Your task to perform on an android device: Show me recent news Image 0: 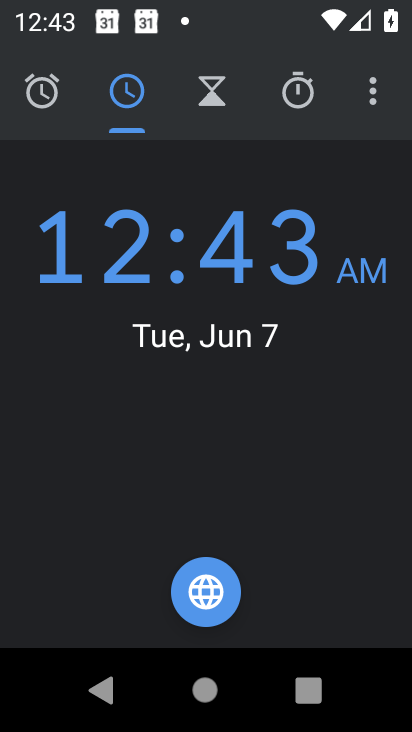
Step 0: press home button
Your task to perform on an android device: Show me recent news Image 1: 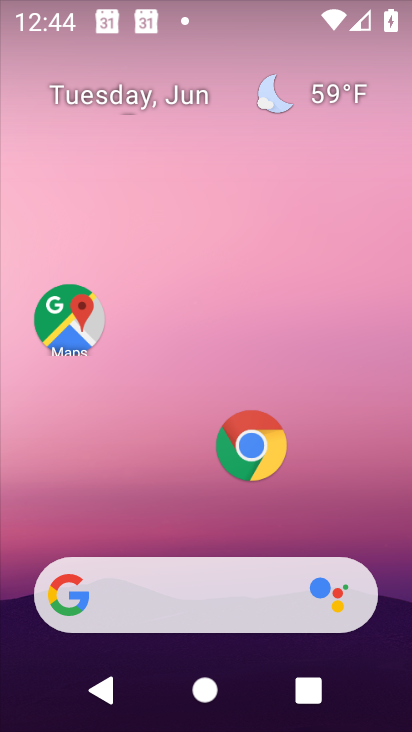
Step 1: click (217, 590)
Your task to perform on an android device: Show me recent news Image 2: 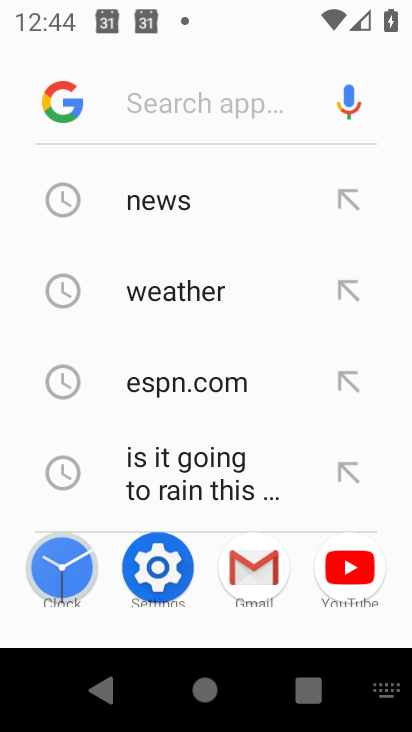
Step 2: click (136, 226)
Your task to perform on an android device: Show me recent news Image 3: 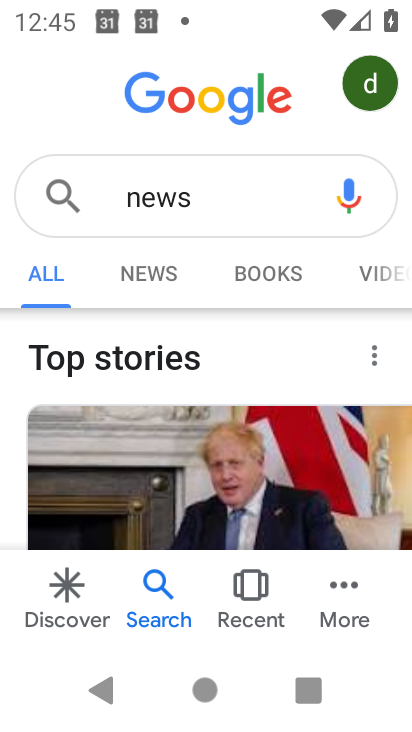
Step 3: task complete